Your task to perform on an android device: Go to Wikipedia Image 0: 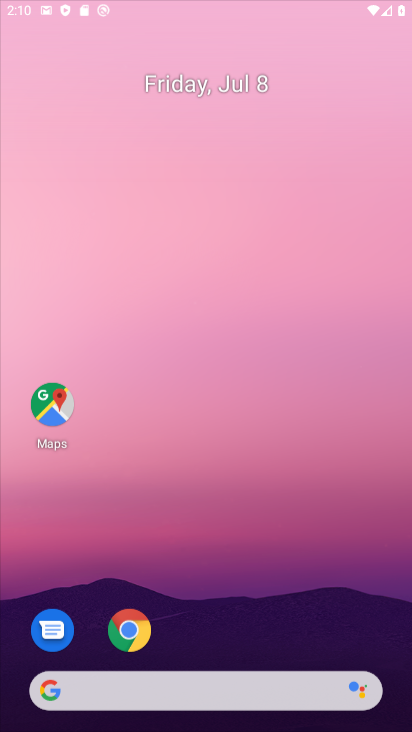
Step 0: drag from (261, 614) to (240, 352)
Your task to perform on an android device: Go to Wikipedia Image 1: 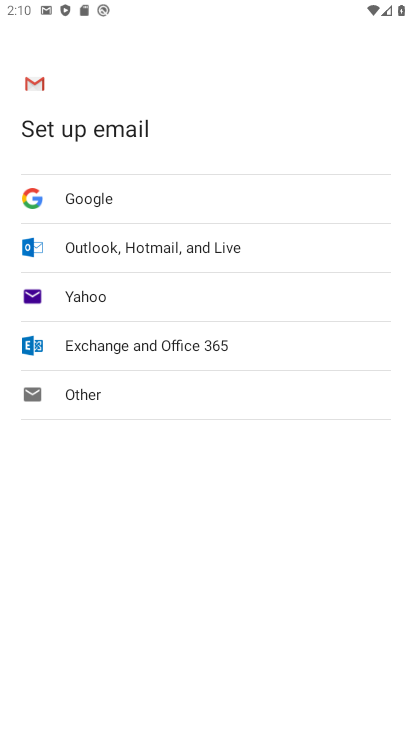
Step 1: press home button
Your task to perform on an android device: Go to Wikipedia Image 2: 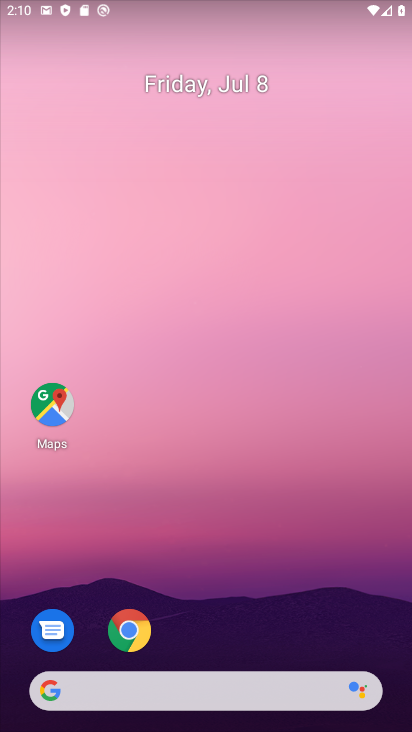
Step 2: drag from (272, 620) to (183, 275)
Your task to perform on an android device: Go to Wikipedia Image 3: 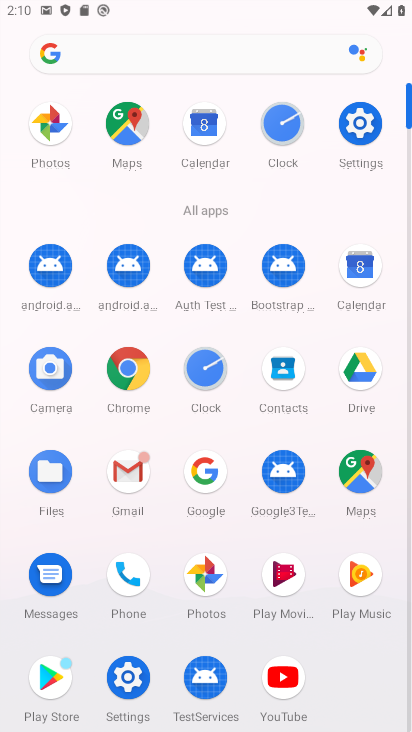
Step 3: click (222, 51)
Your task to perform on an android device: Go to Wikipedia Image 4: 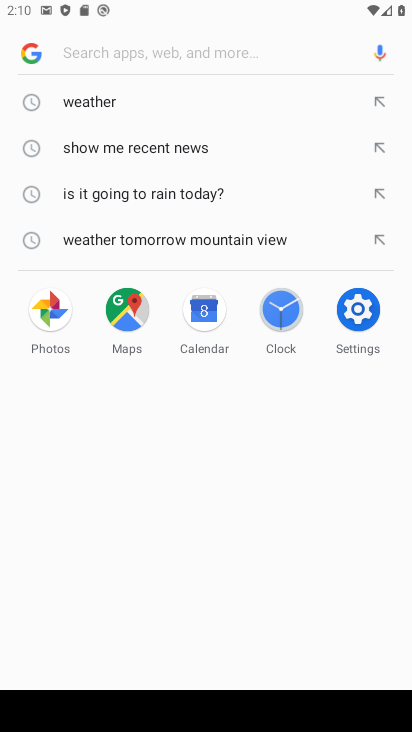
Step 4: type "wikipedia"
Your task to perform on an android device: Go to Wikipedia Image 5: 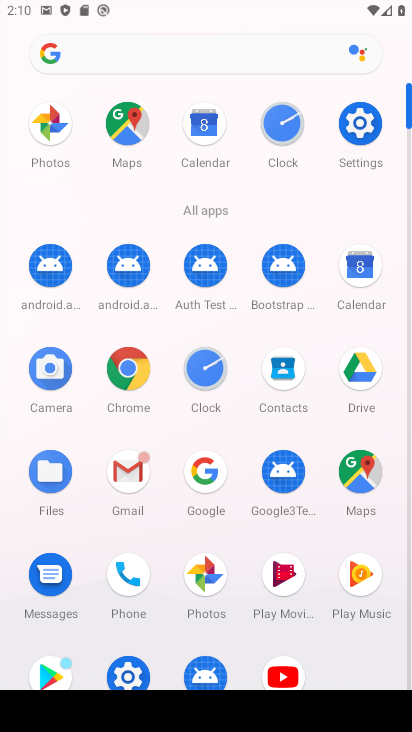
Step 5: click (219, 62)
Your task to perform on an android device: Go to Wikipedia Image 6: 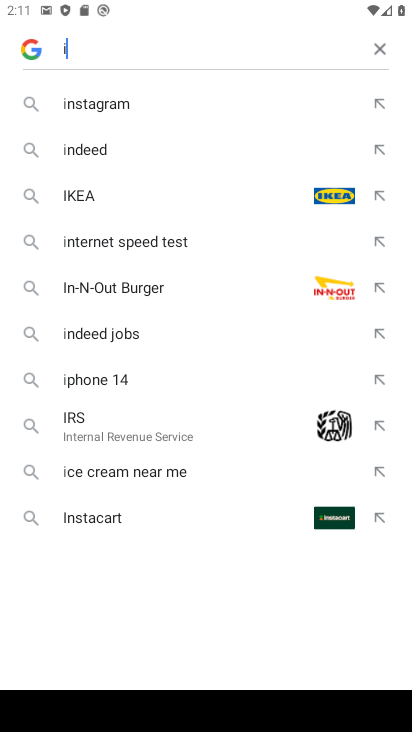
Step 6: type "wikipedia"
Your task to perform on an android device: Go to Wikipedia Image 7: 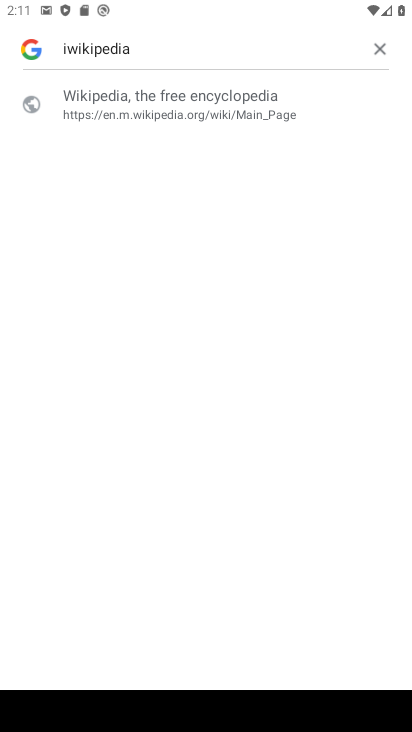
Step 7: click (281, 124)
Your task to perform on an android device: Go to Wikipedia Image 8: 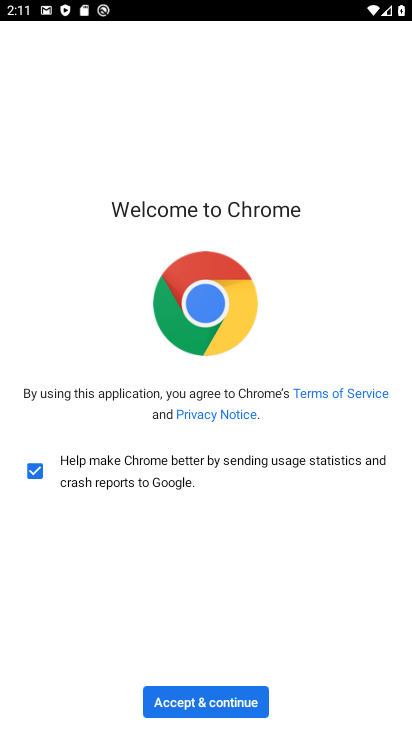
Step 8: click (232, 691)
Your task to perform on an android device: Go to Wikipedia Image 9: 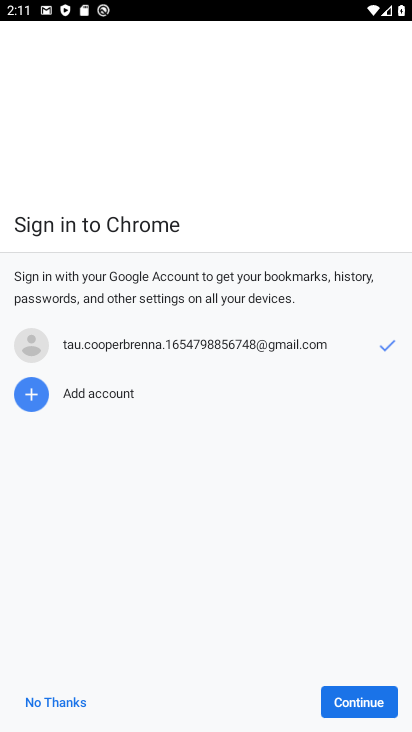
Step 9: click (378, 701)
Your task to perform on an android device: Go to Wikipedia Image 10: 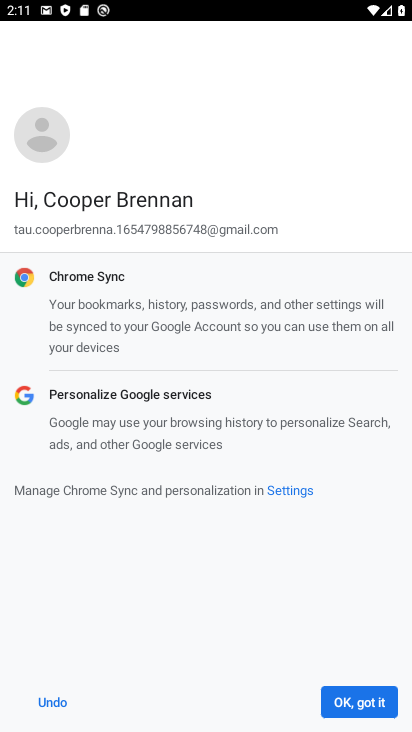
Step 10: click (362, 705)
Your task to perform on an android device: Go to Wikipedia Image 11: 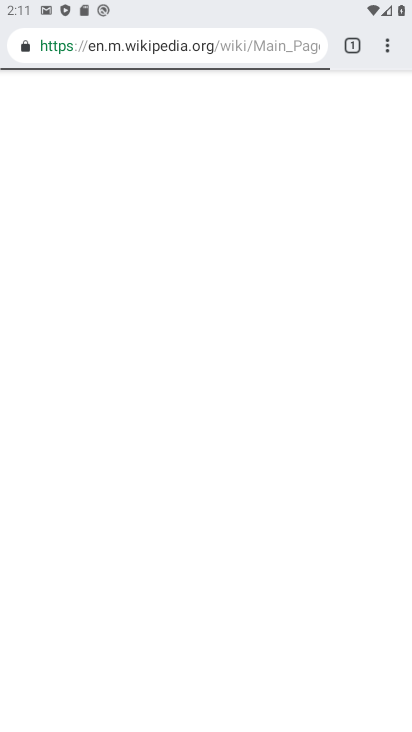
Step 11: task complete